Your task to perform on an android device: move a message to another label in the gmail app Image 0: 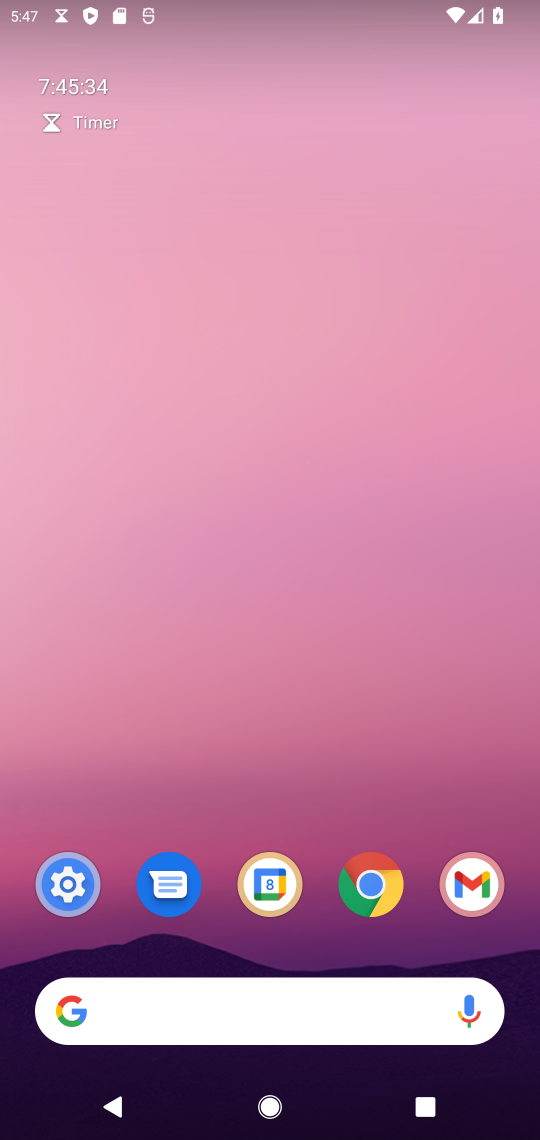
Step 0: click (475, 866)
Your task to perform on an android device: move a message to another label in the gmail app Image 1: 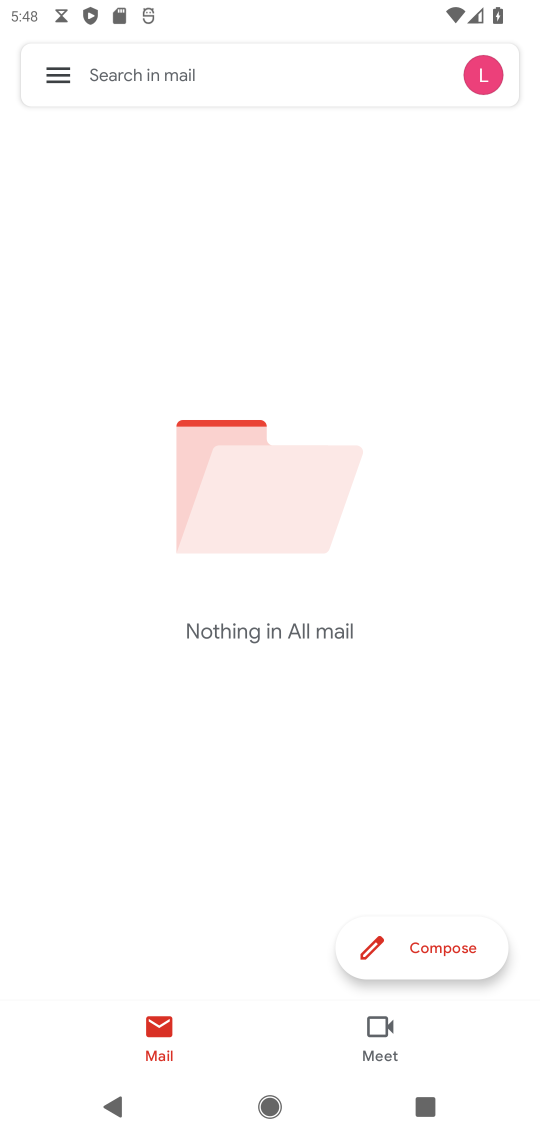
Step 1: task complete